Your task to perform on an android device: Look up the new steph curry shoes Image 0: 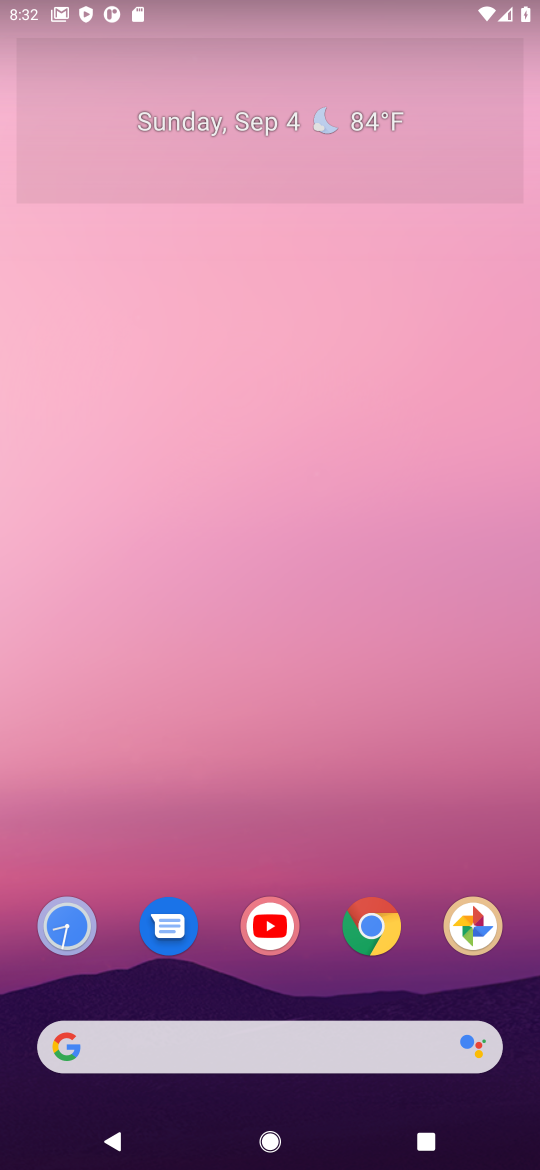
Step 0: click (124, 1043)
Your task to perform on an android device: Look up the new steph curry shoes Image 1: 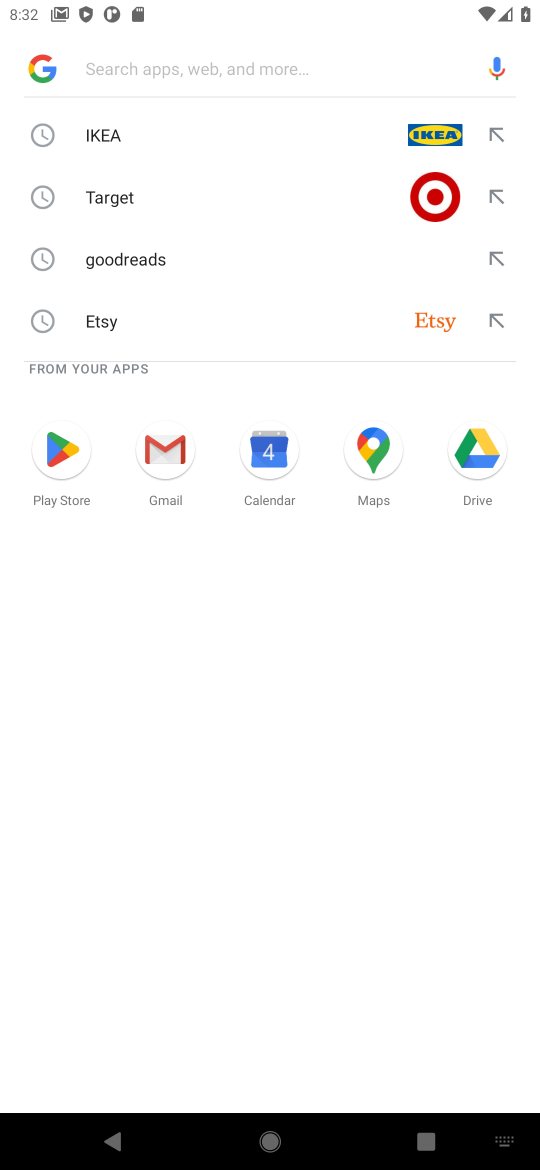
Step 1: type "new steph curry shoes"
Your task to perform on an android device: Look up the new steph curry shoes Image 2: 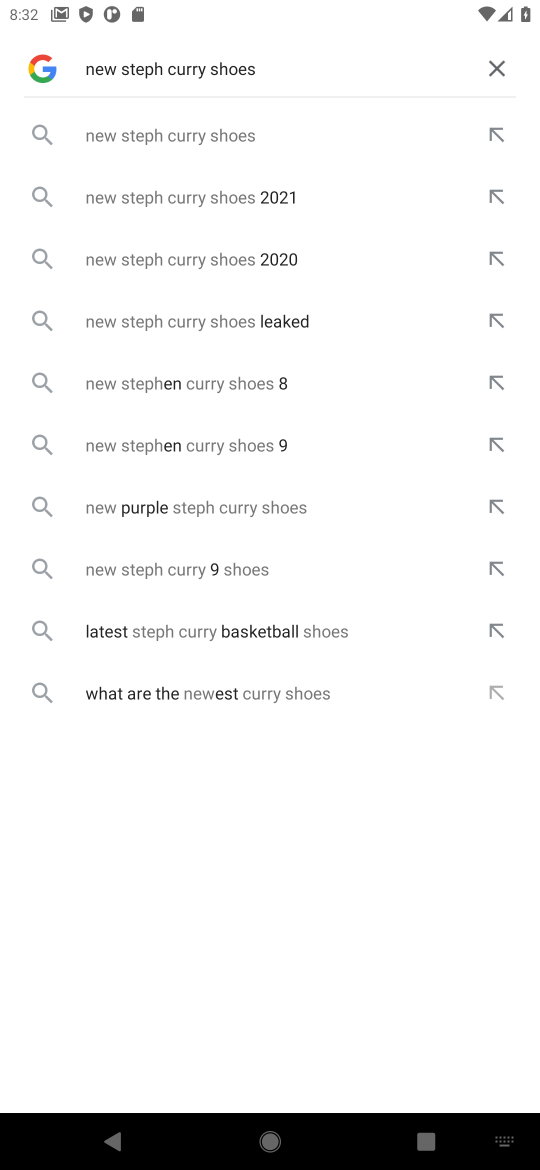
Step 2: click (208, 132)
Your task to perform on an android device: Look up the new steph curry shoes Image 3: 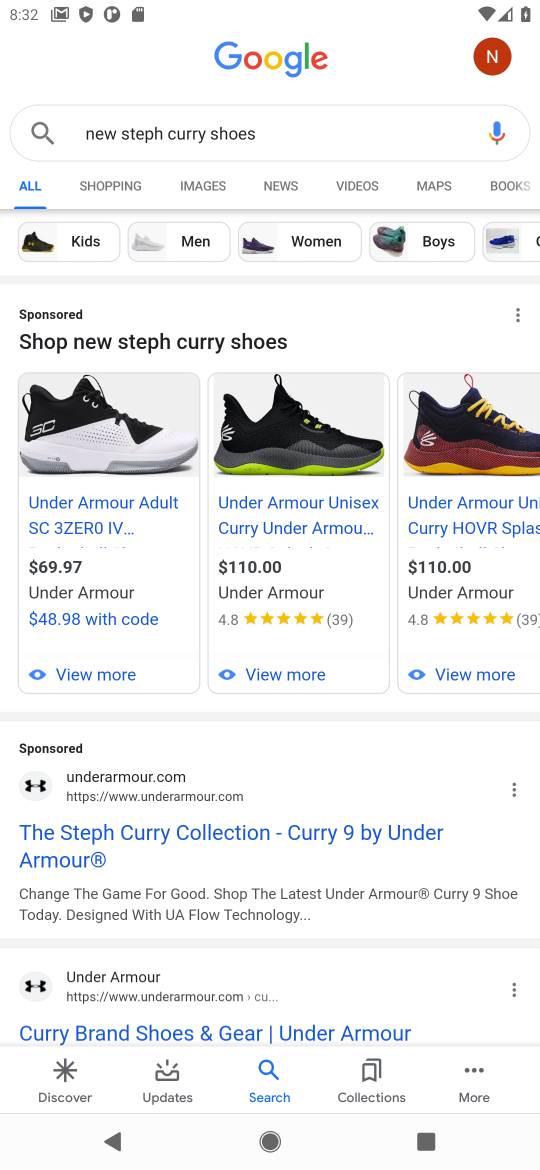
Step 3: task complete